Your task to perform on an android device: Open internet settings Image 0: 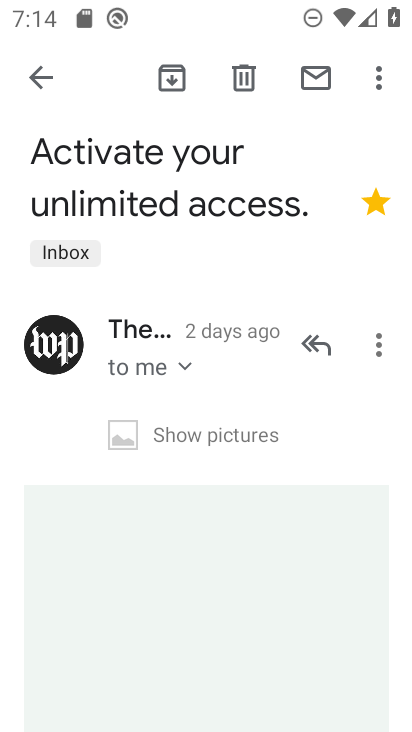
Step 0: press home button
Your task to perform on an android device: Open internet settings Image 1: 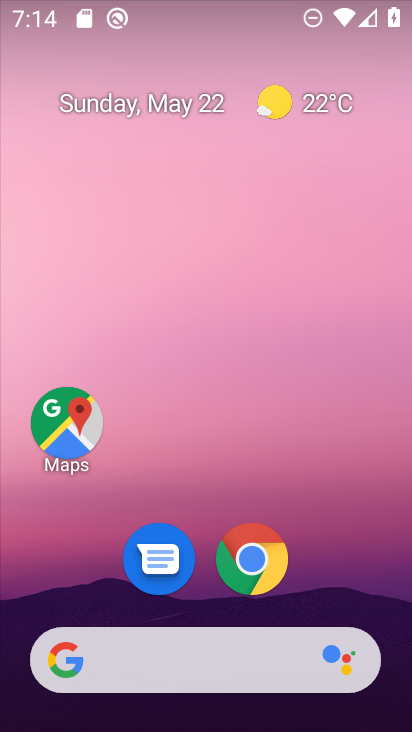
Step 1: drag from (218, 650) to (223, 158)
Your task to perform on an android device: Open internet settings Image 2: 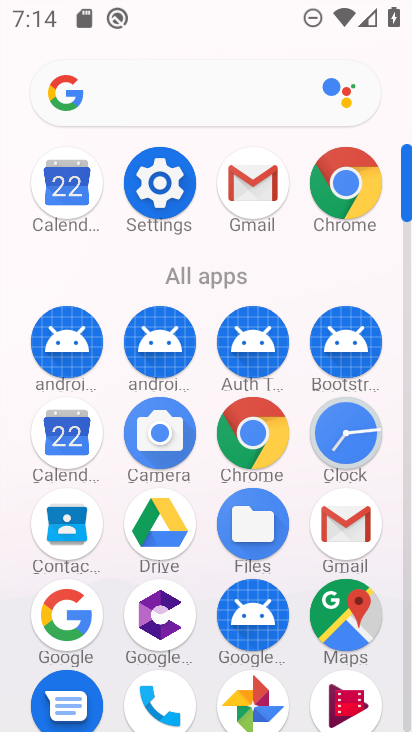
Step 2: click (180, 207)
Your task to perform on an android device: Open internet settings Image 3: 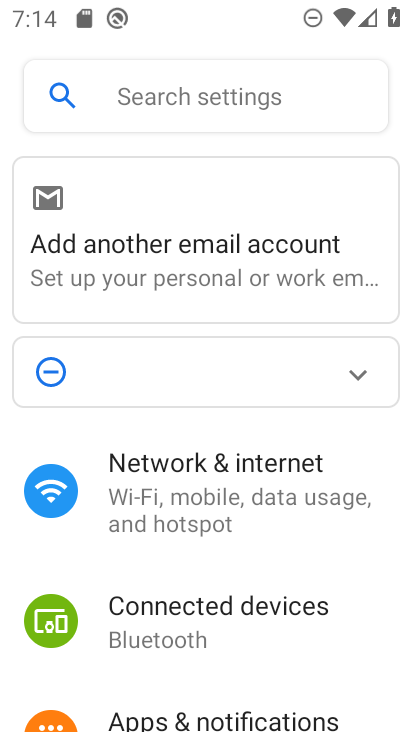
Step 3: click (230, 476)
Your task to perform on an android device: Open internet settings Image 4: 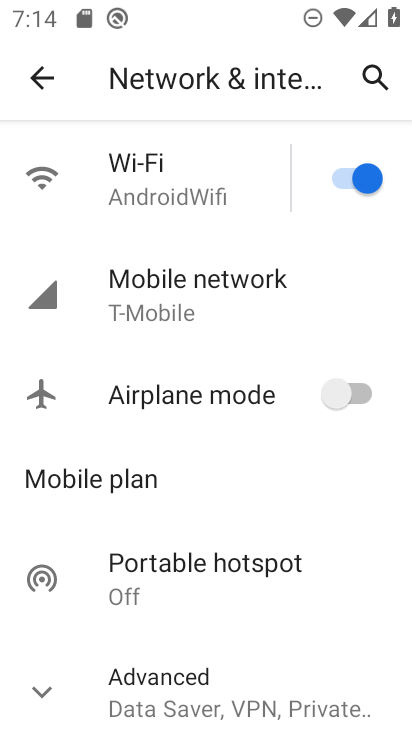
Step 4: task complete